Your task to perform on an android device: change the upload size in google photos Image 0: 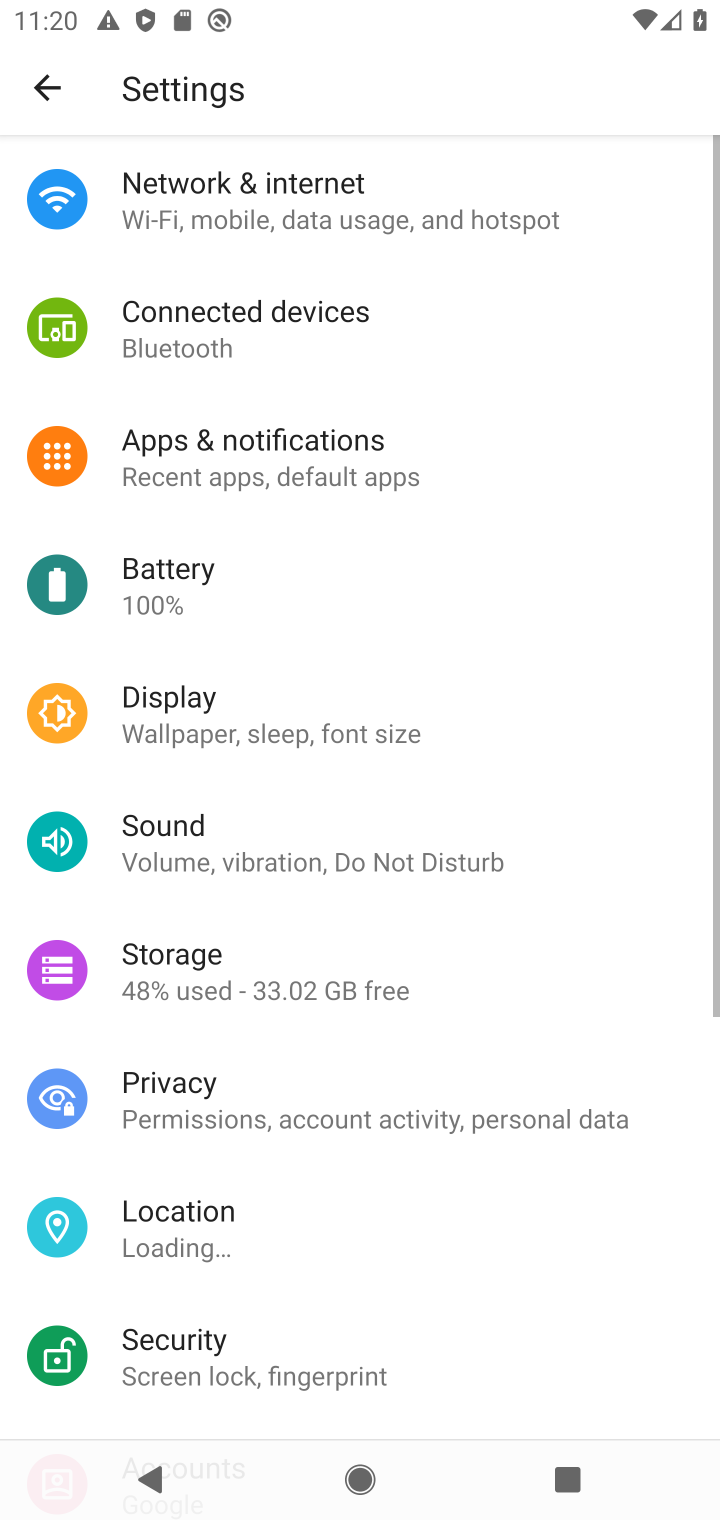
Step 0: press home button
Your task to perform on an android device: change the upload size in google photos Image 1: 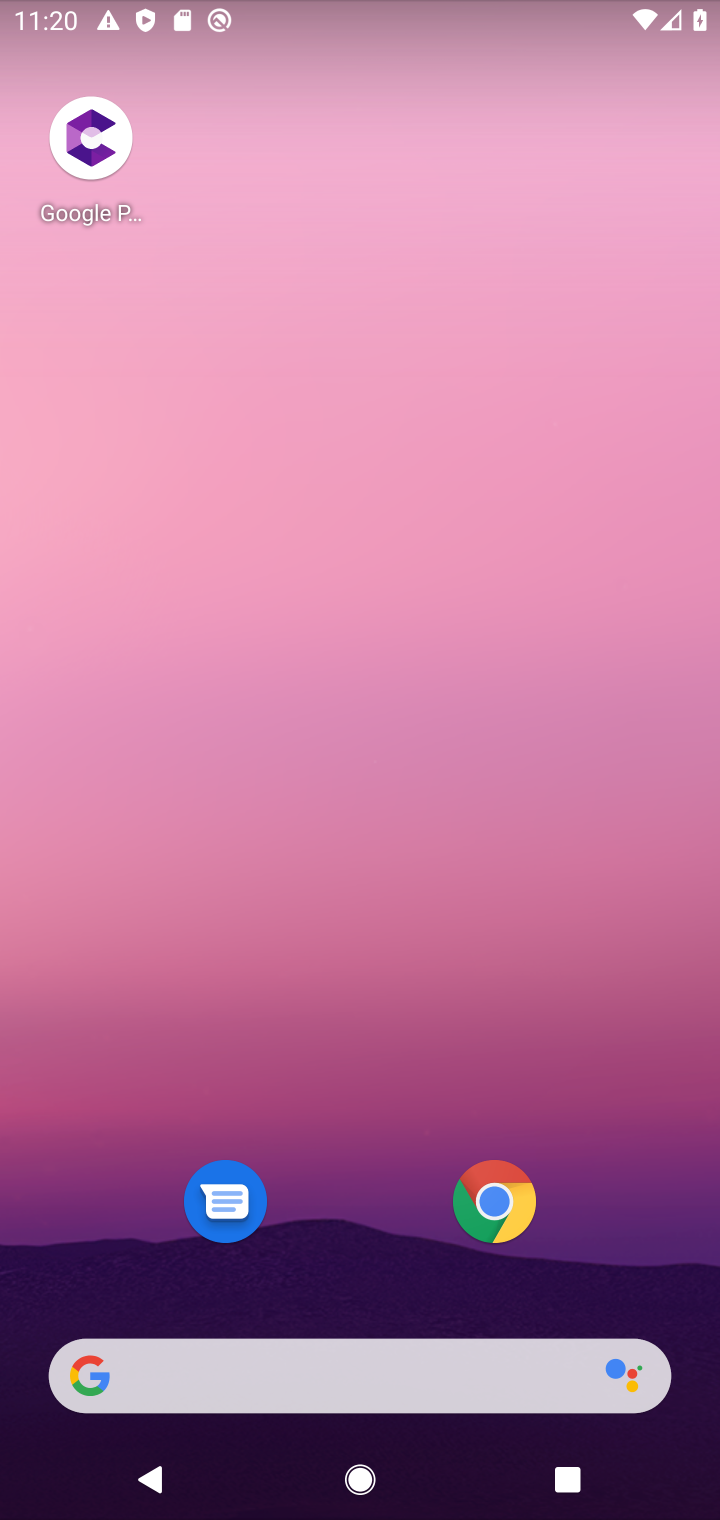
Step 1: drag from (312, 1298) to (207, 49)
Your task to perform on an android device: change the upload size in google photos Image 2: 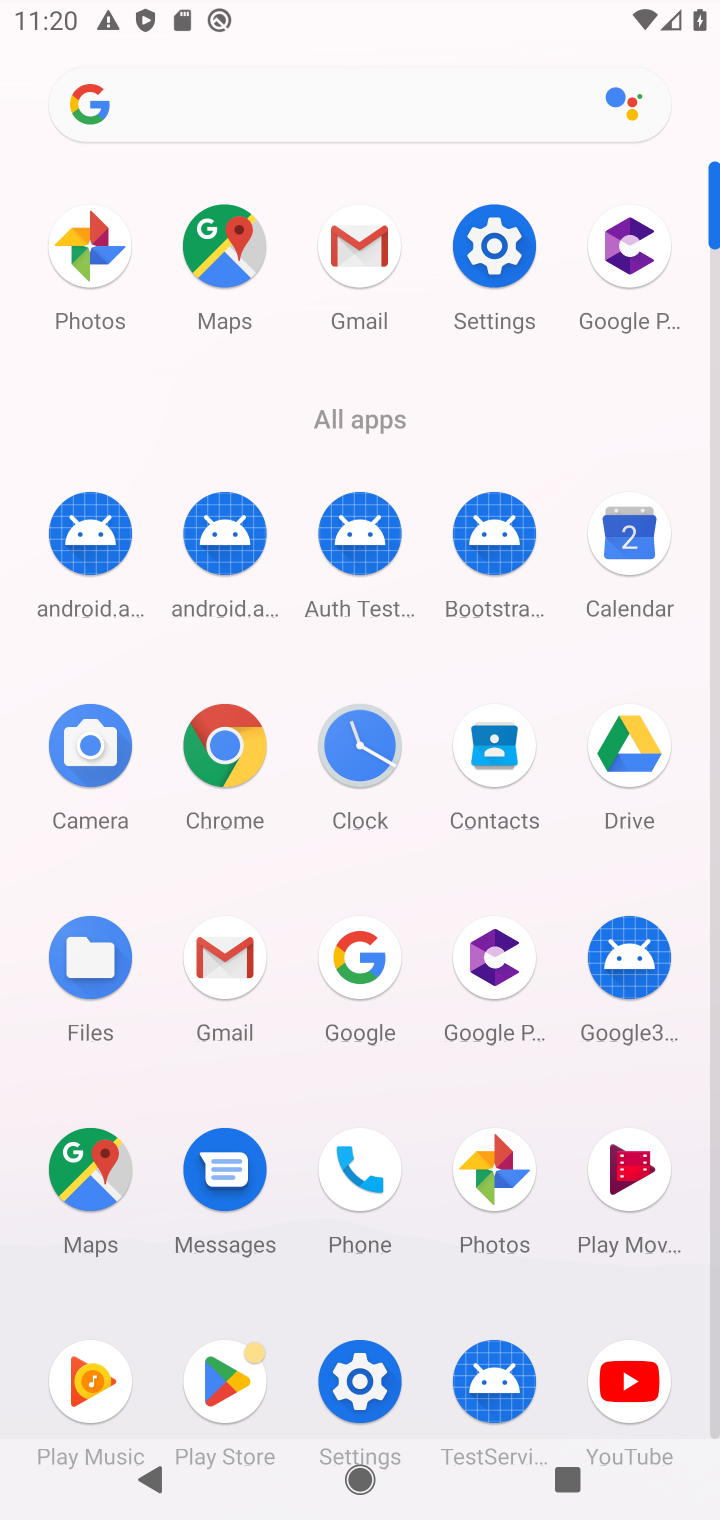
Step 2: click (500, 1206)
Your task to perform on an android device: change the upload size in google photos Image 3: 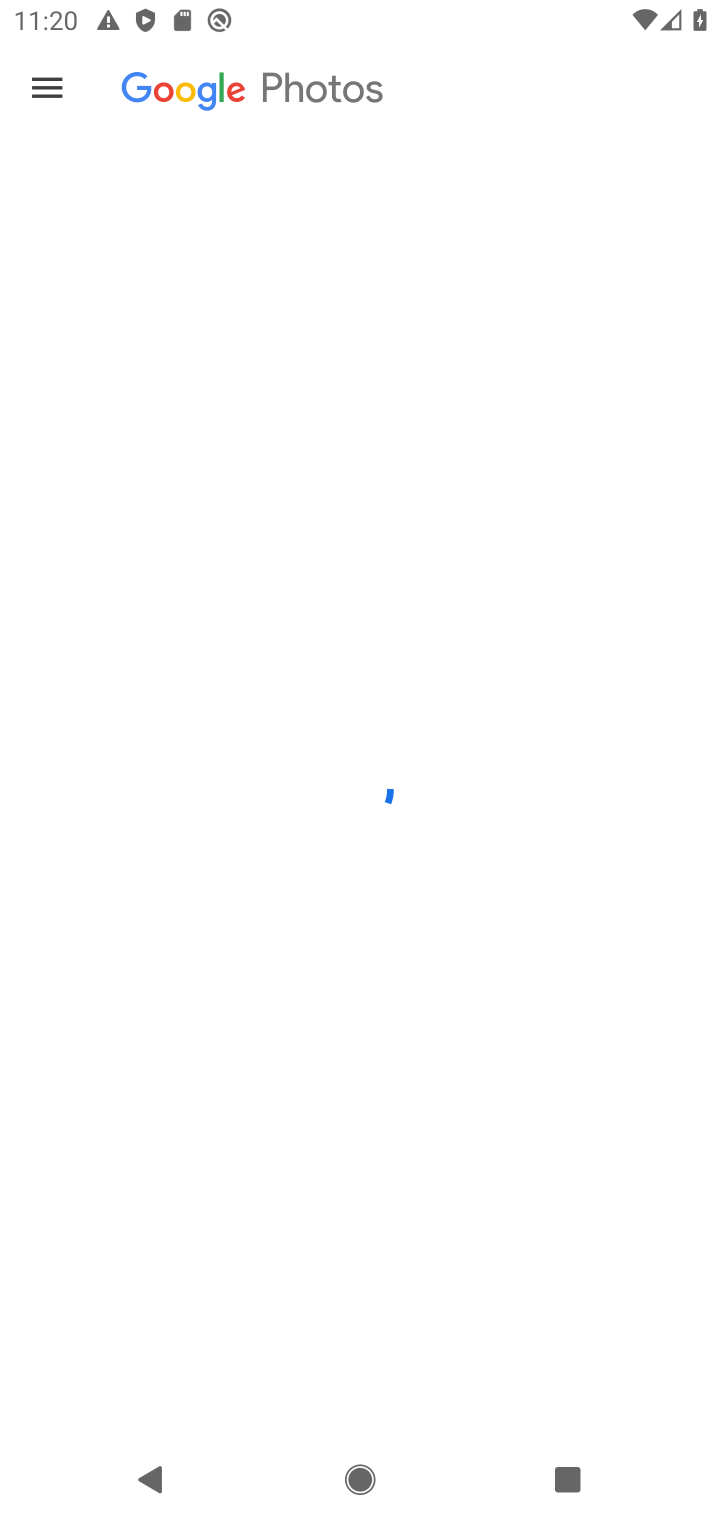
Step 3: click (37, 95)
Your task to perform on an android device: change the upload size in google photos Image 4: 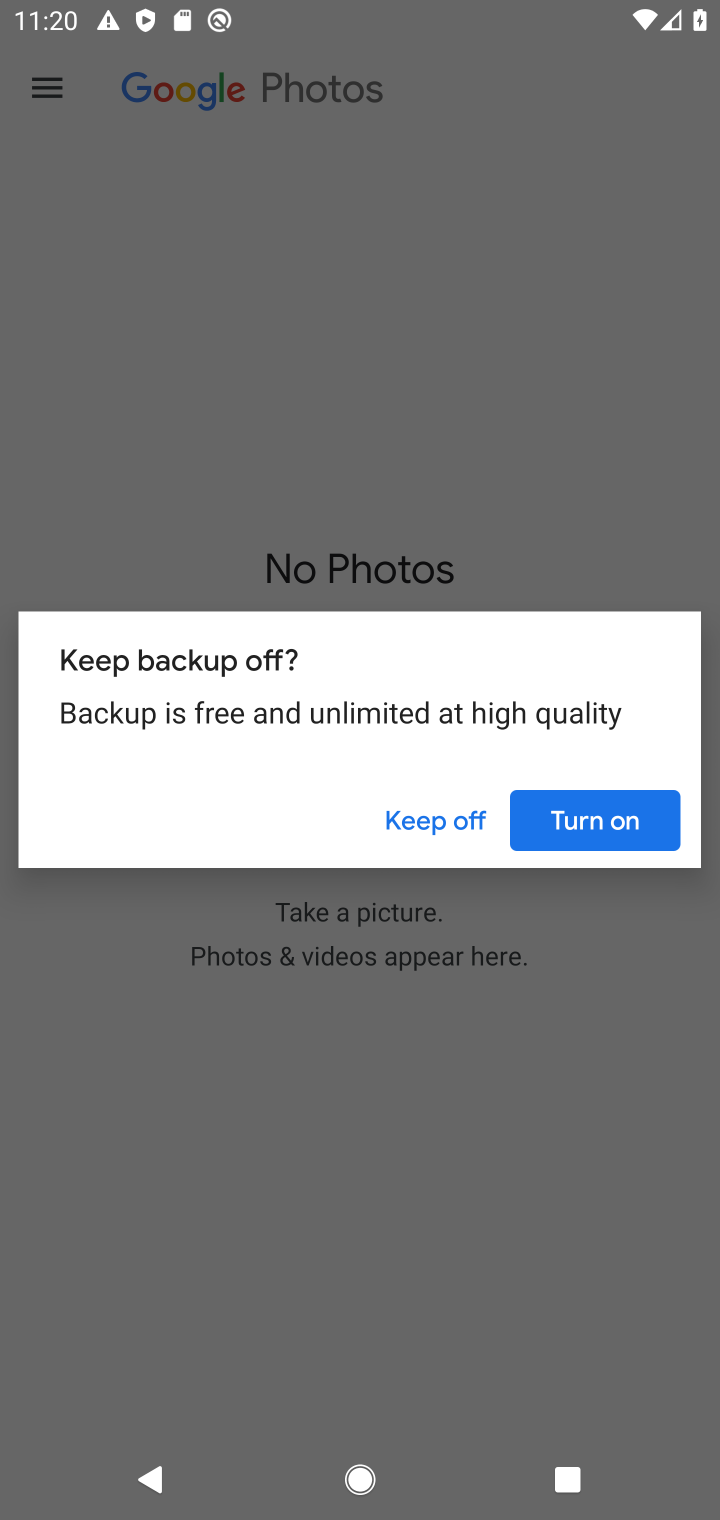
Step 4: click (61, 95)
Your task to perform on an android device: change the upload size in google photos Image 5: 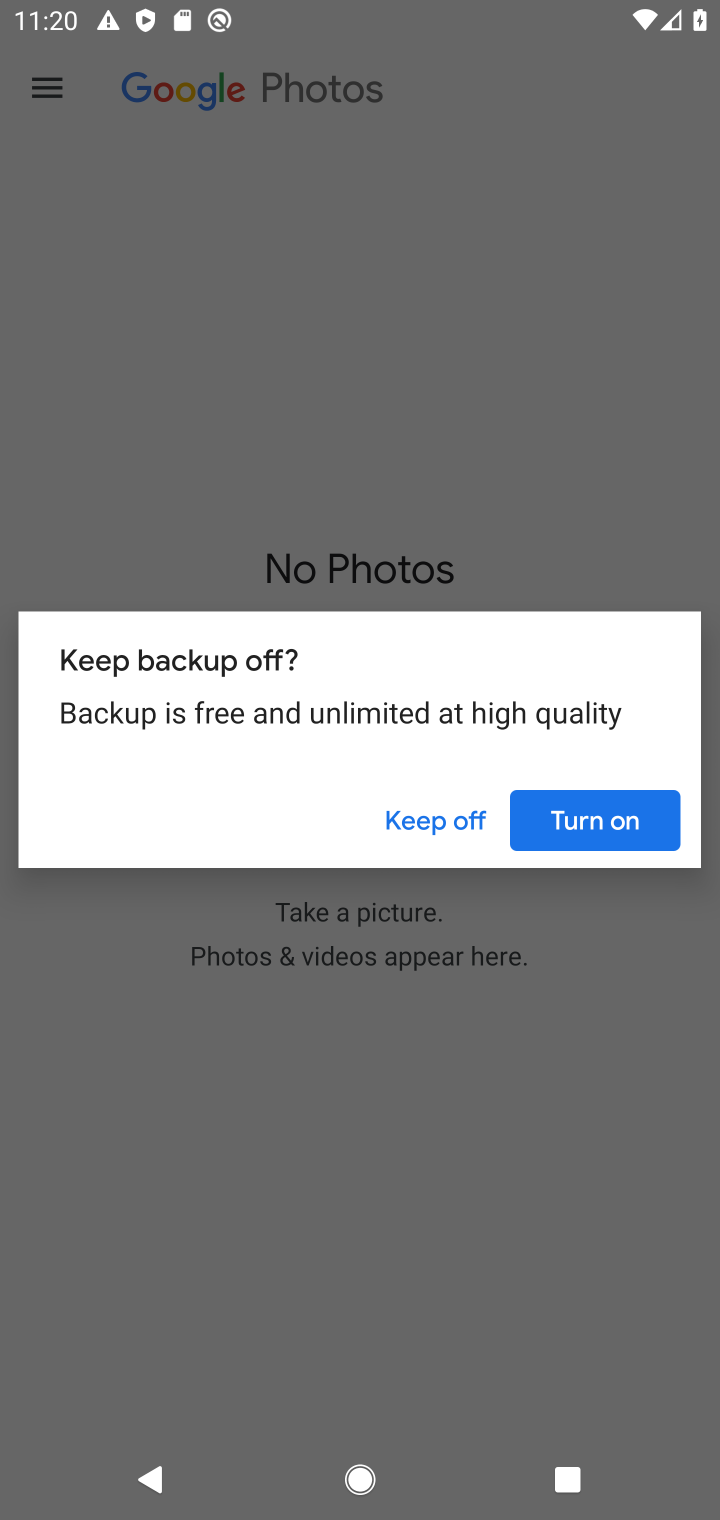
Step 5: click (418, 847)
Your task to perform on an android device: change the upload size in google photos Image 6: 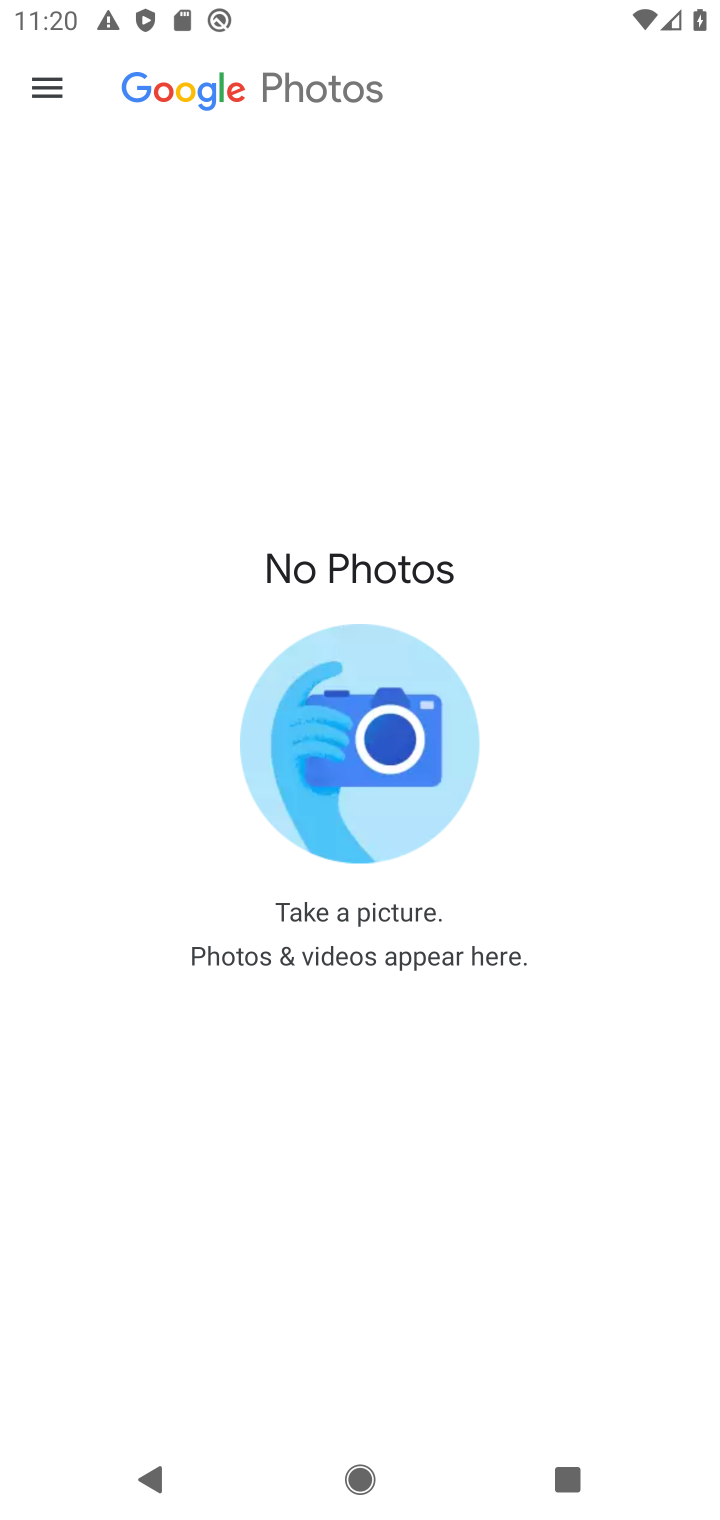
Step 6: click (37, 86)
Your task to perform on an android device: change the upload size in google photos Image 7: 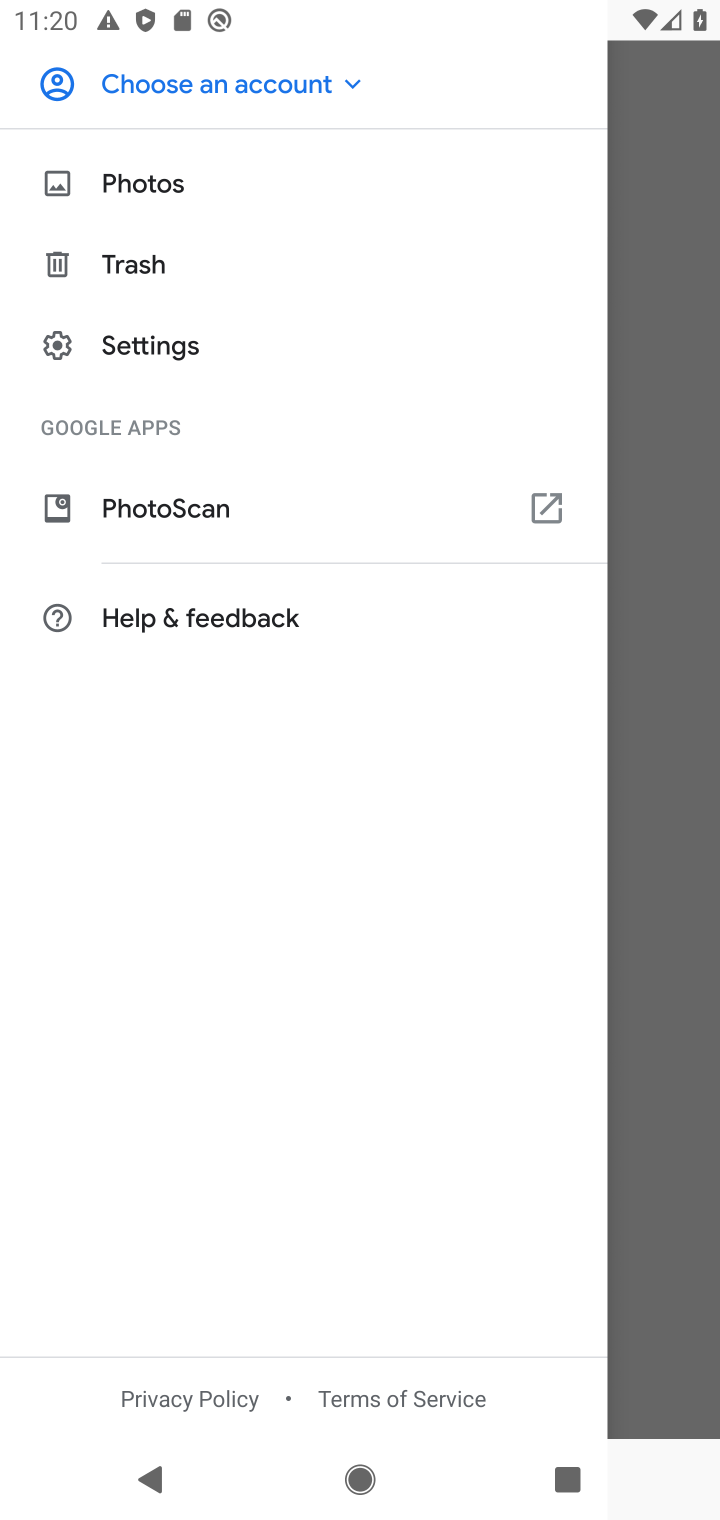
Step 7: click (140, 370)
Your task to perform on an android device: change the upload size in google photos Image 8: 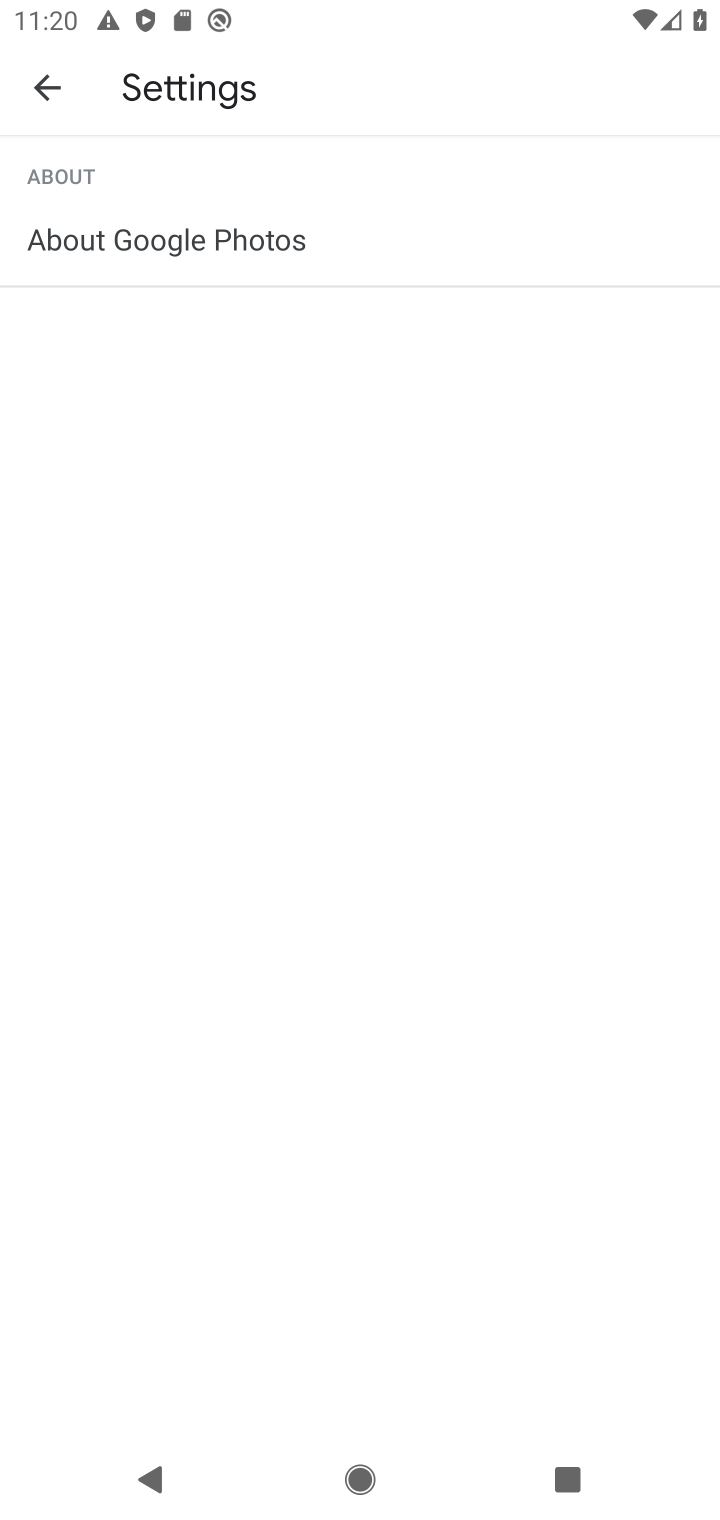
Step 8: click (31, 81)
Your task to perform on an android device: change the upload size in google photos Image 9: 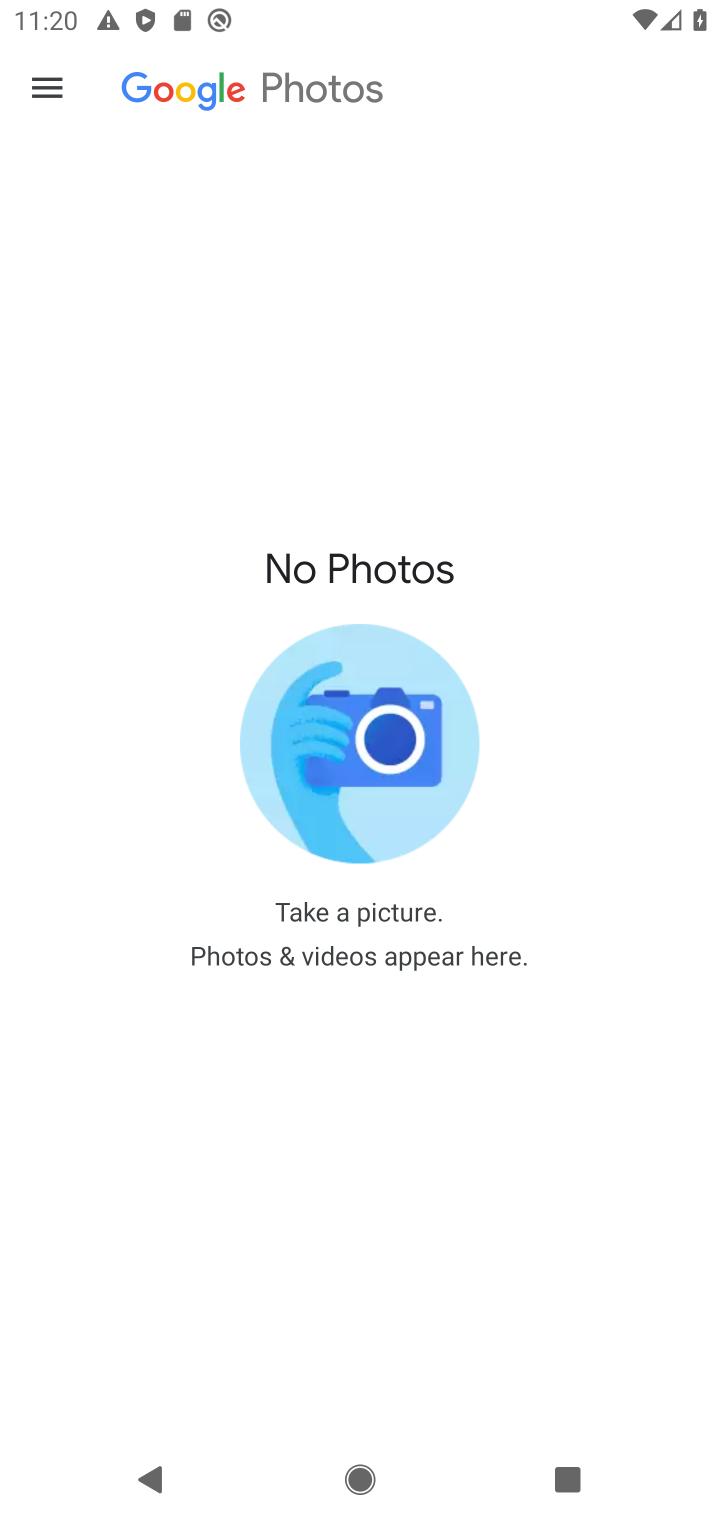
Step 9: click (31, 81)
Your task to perform on an android device: change the upload size in google photos Image 10: 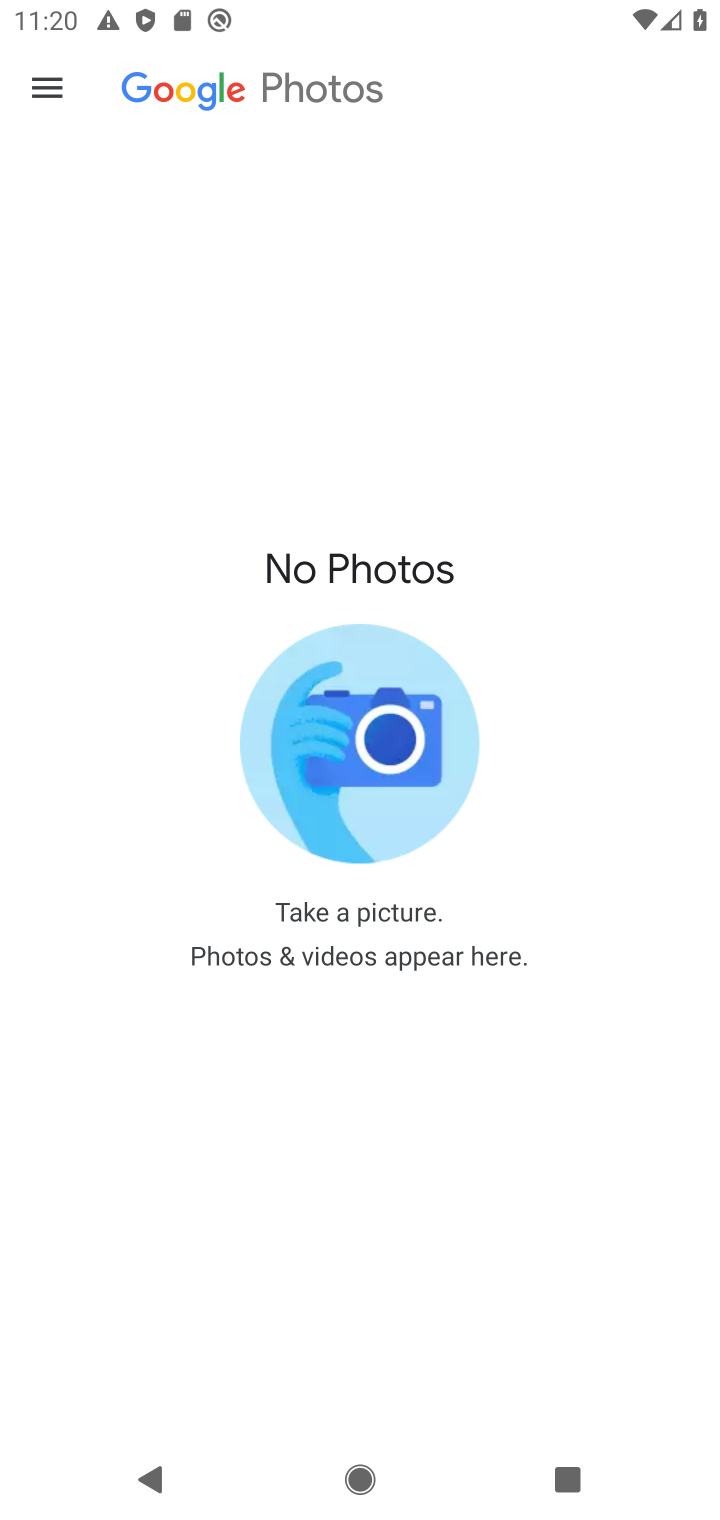
Step 10: click (45, 81)
Your task to perform on an android device: change the upload size in google photos Image 11: 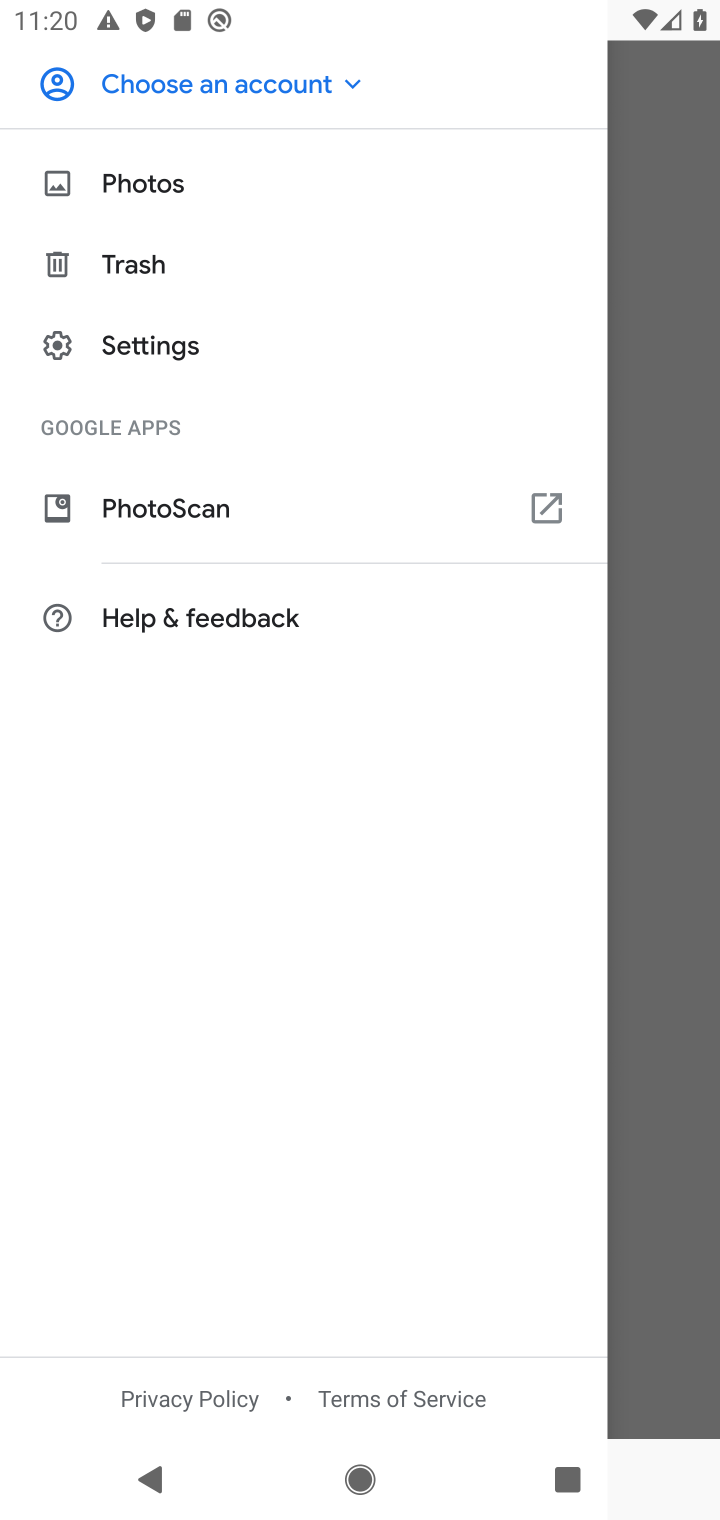
Step 11: click (82, 81)
Your task to perform on an android device: change the upload size in google photos Image 12: 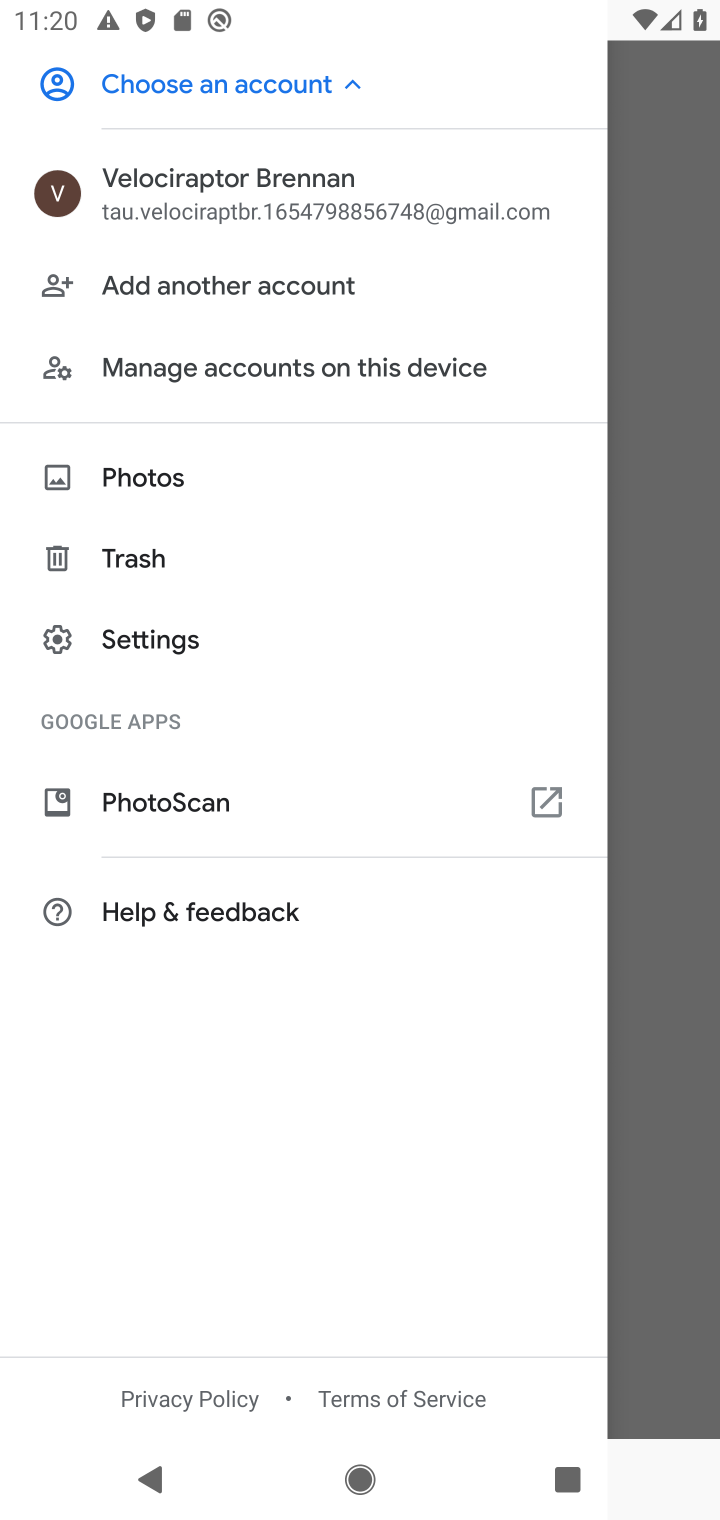
Step 12: click (235, 195)
Your task to perform on an android device: change the upload size in google photos Image 13: 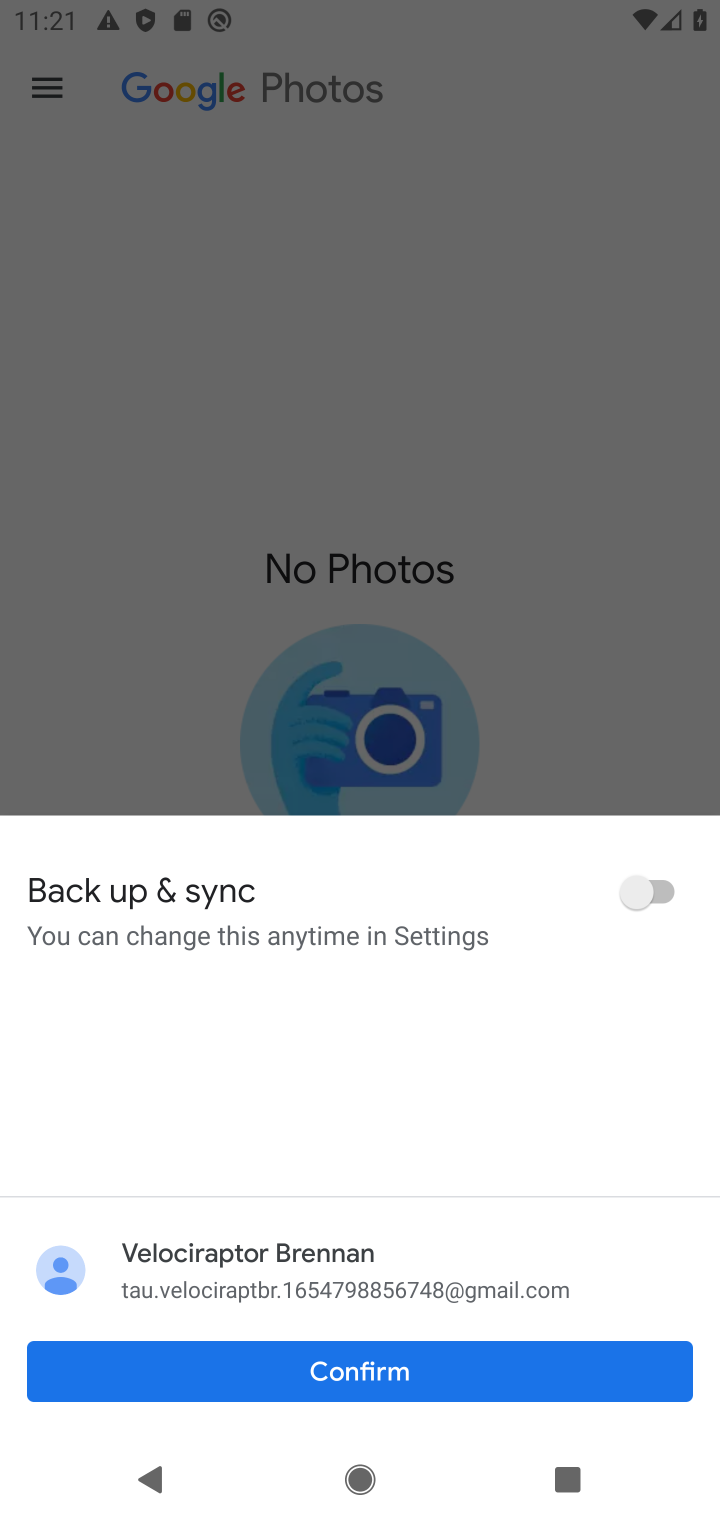
Step 13: click (456, 1406)
Your task to perform on an android device: change the upload size in google photos Image 14: 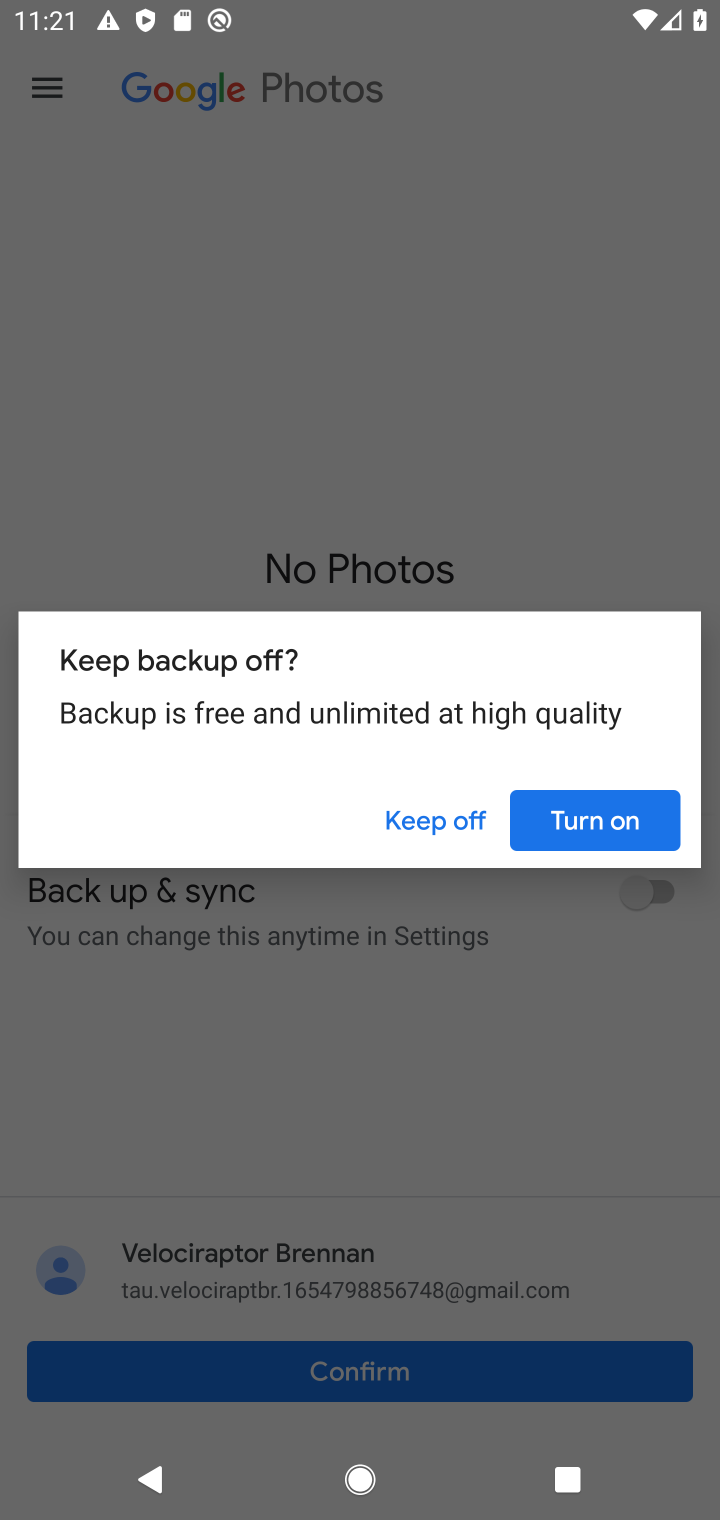
Step 14: click (534, 837)
Your task to perform on an android device: change the upload size in google photos Image 15: 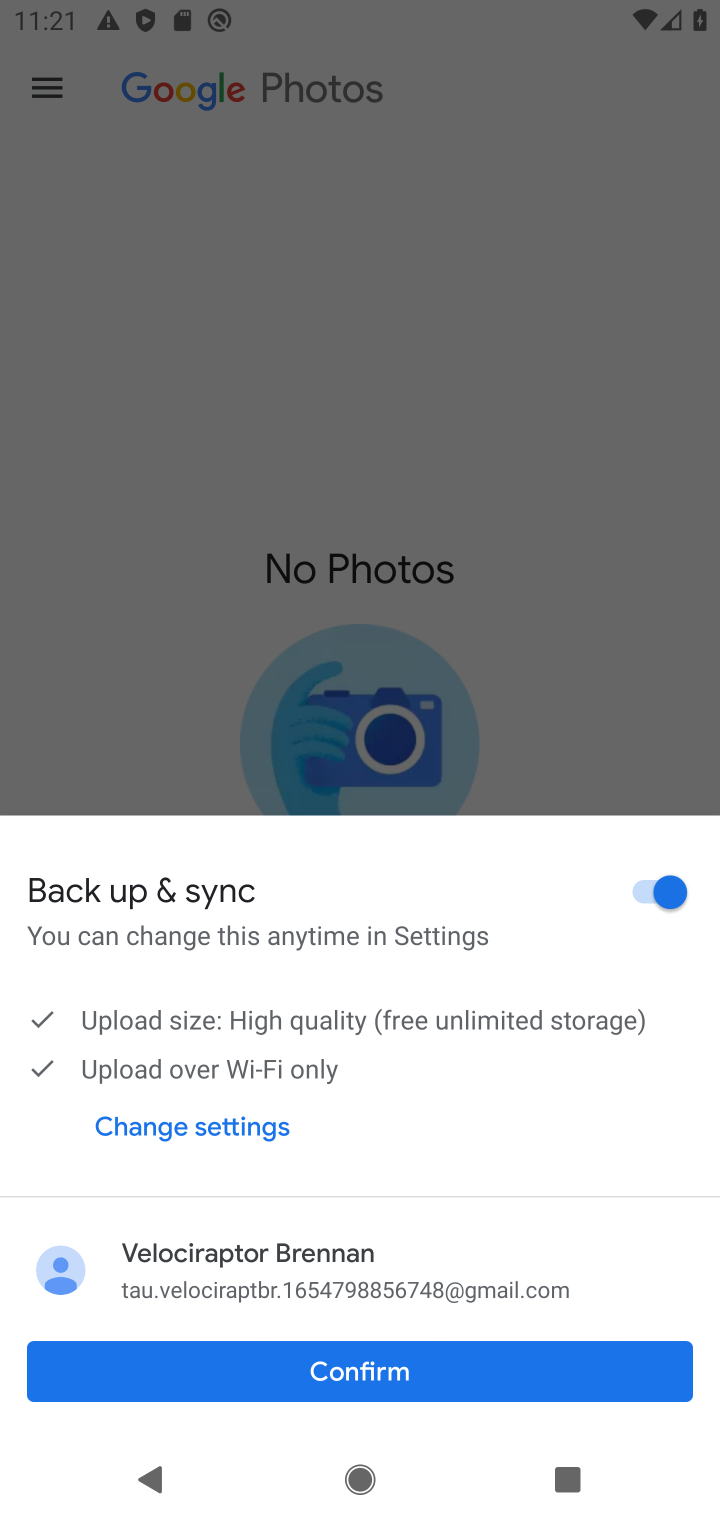
Step 15: click (472, 1378)
Your task to perform on an android device: change the upload size in google photos Image 16: 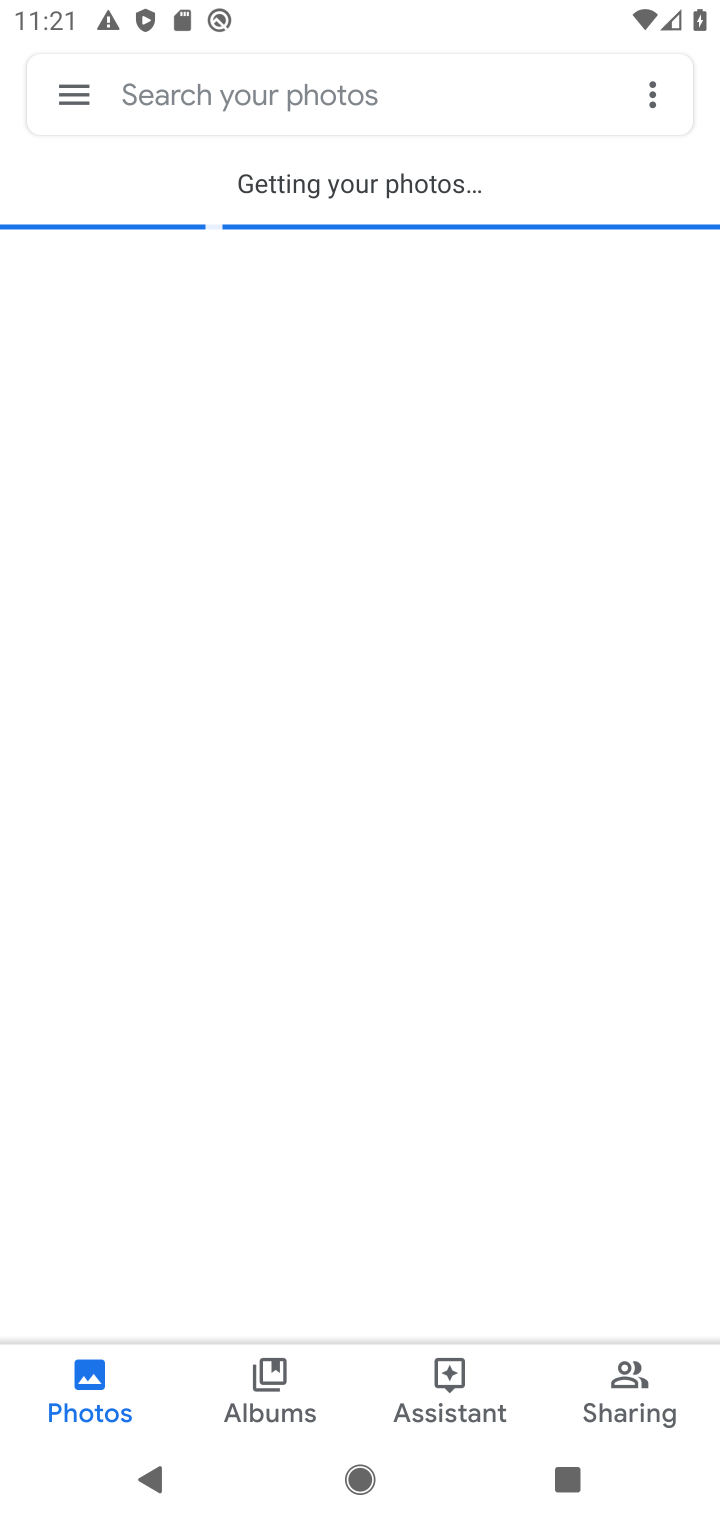
Step 16: click (79, 93)
Your task to perform on an android device: change the upload size in google photos Image 17: 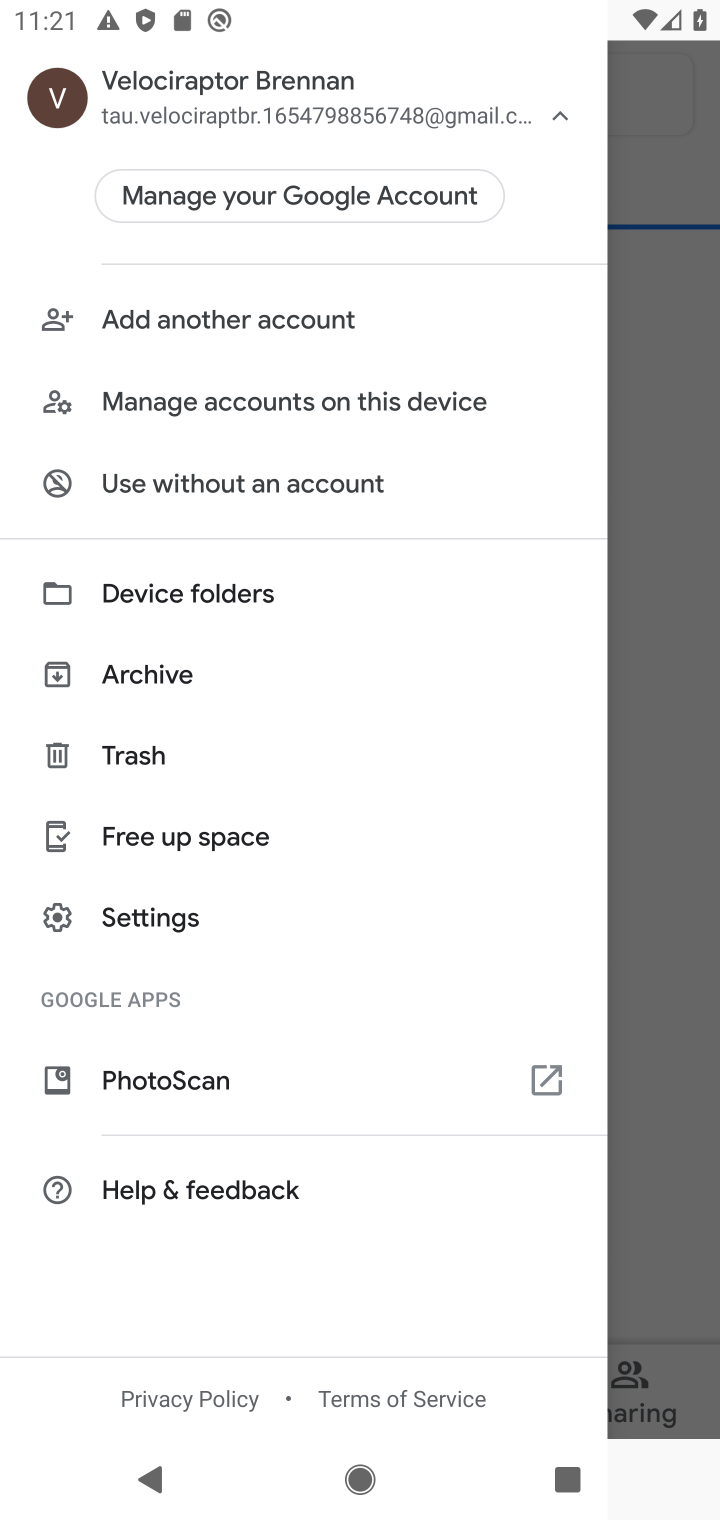
Step 17: click (129, 915)
Your task to perform on an android device: change the upload size in google photos Image 18: 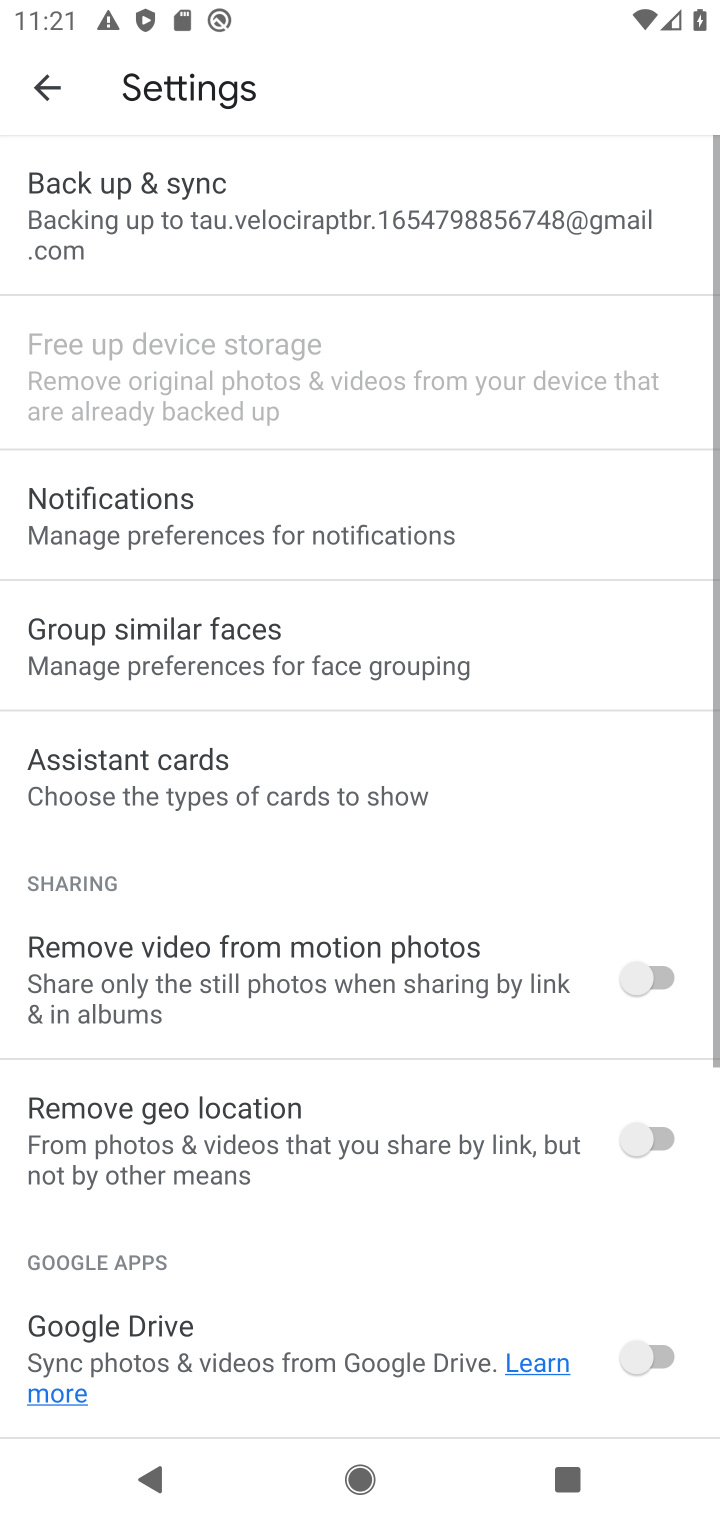
Step 18: click (145, 167)
Your task to perform on an android device: change the upload size in google photos Image 19: 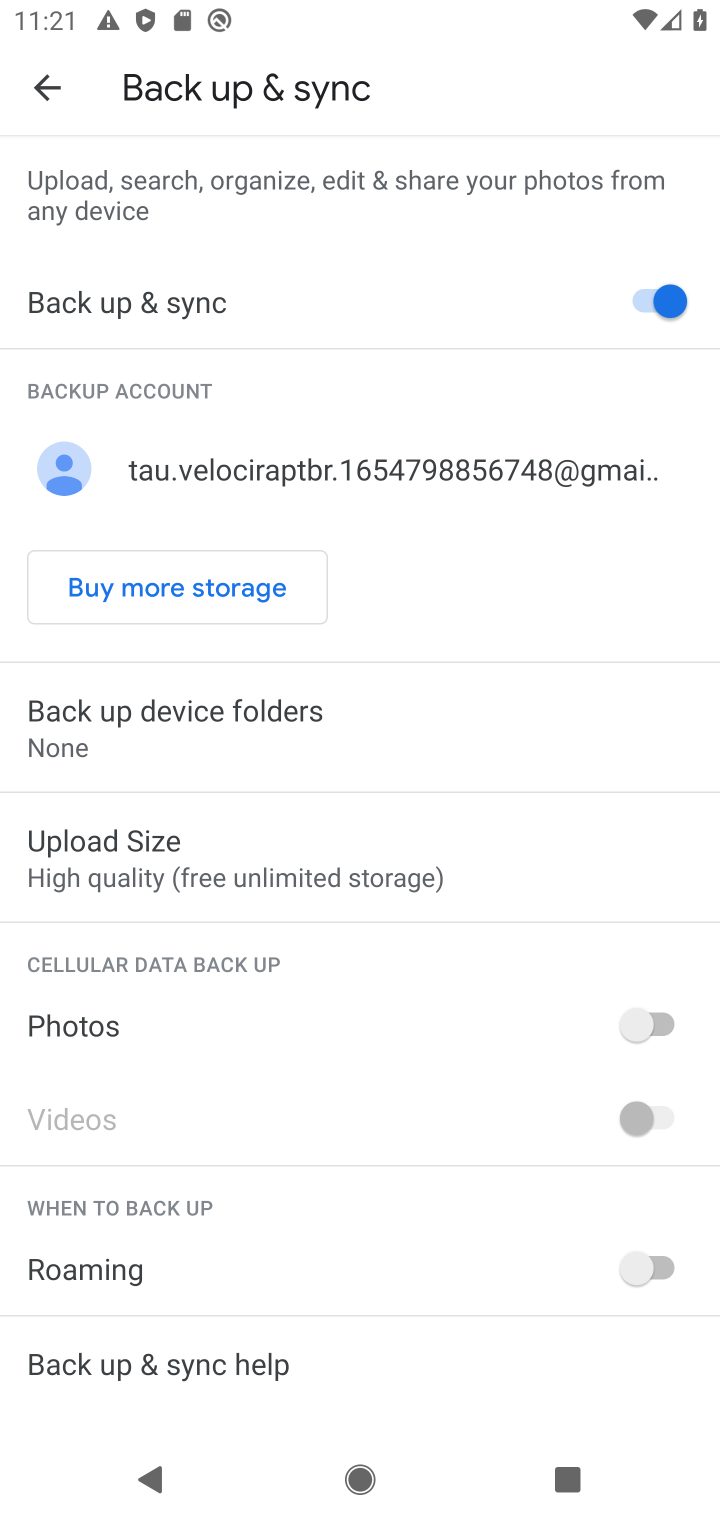
Step 19: click (199, 874)
Your task to perform on an android device: change the upload size in google photos Image 20: 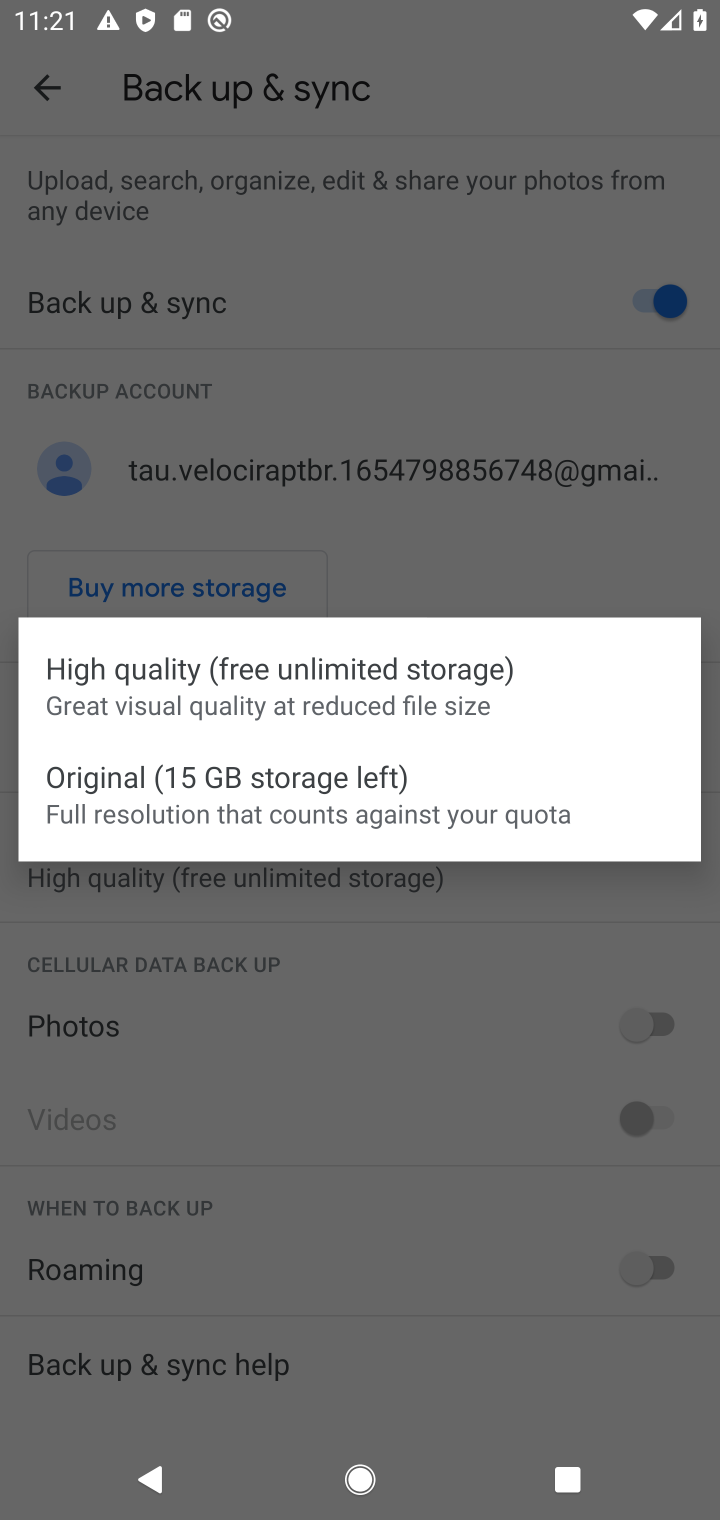
Step 20: click (128, 812)
Your task to perform on an android device: change the upload size in google photos Image 21: 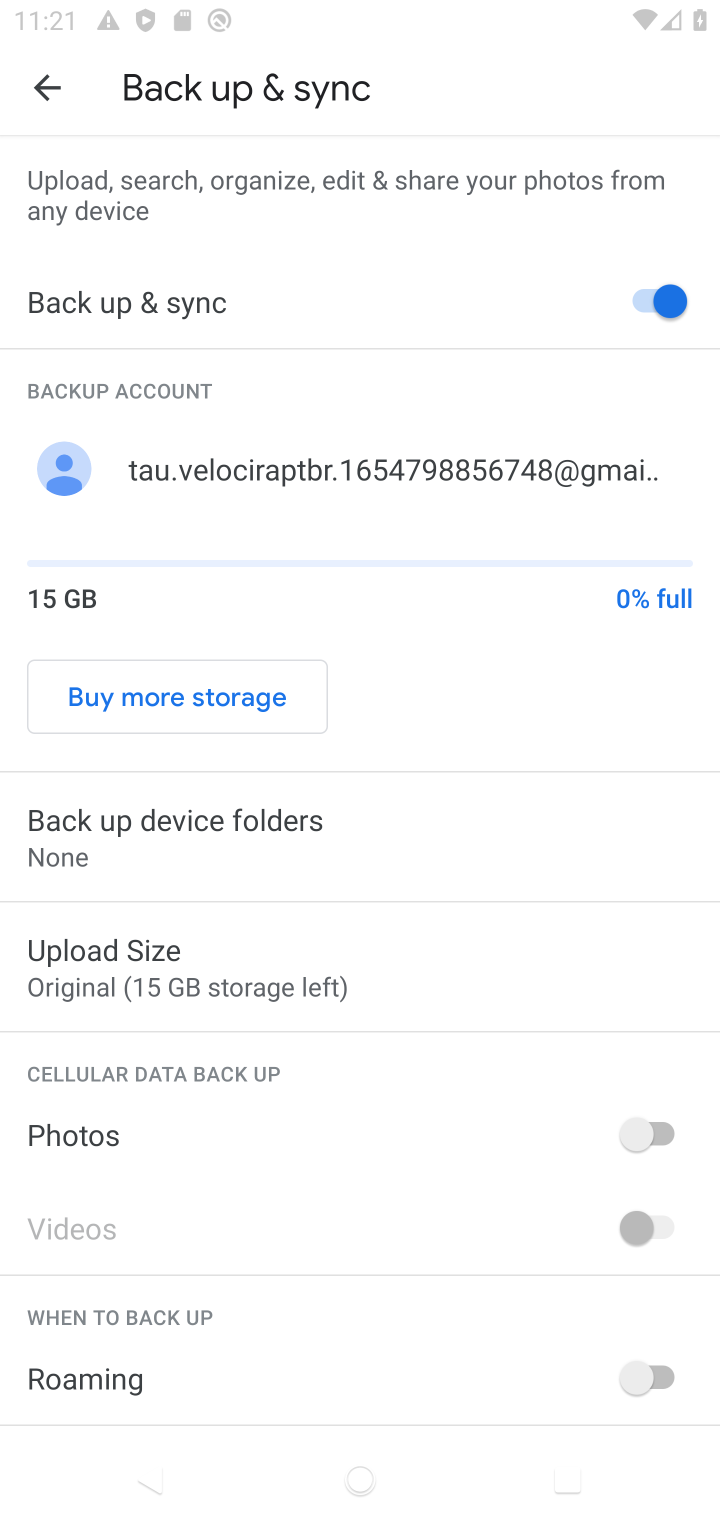
Step 21: task complete